Your task to perform on an android device: Go to eBay Image 0: 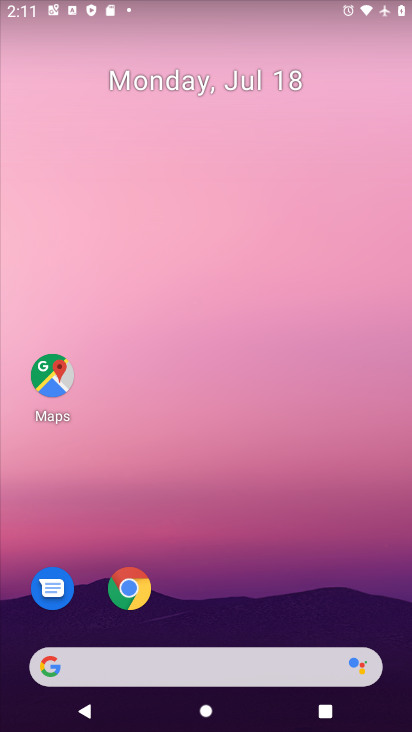
Step 0: drag from (209, 637) to (322, 189)
Your task to perform on an android device: Go to eBay Image 1: 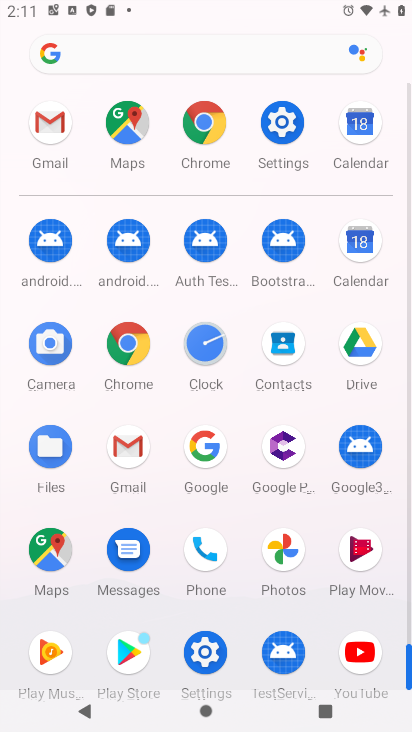
Step 1: click (206, 125)
Your task to perform on an android device: Go to eBay Image 2: 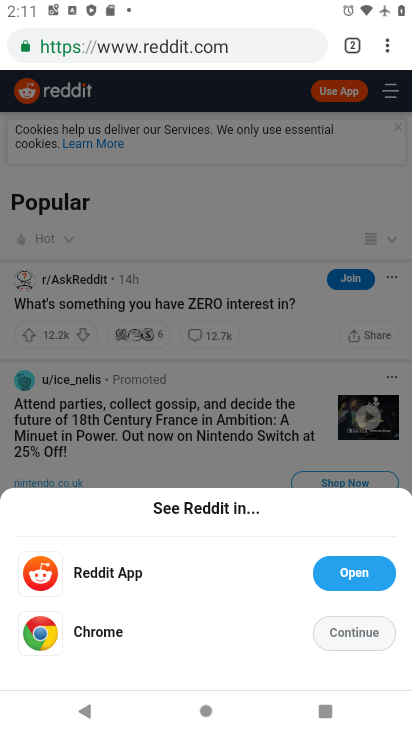
Step 2: click (294, 53)
Your task to perform on an android device: Go to eBay Image 3: 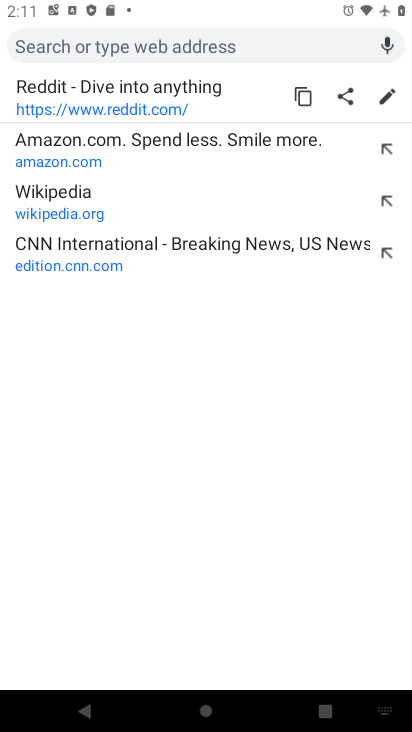
Step 3: click (226, 45)
Your task to perform on an android device: Go to eBay Image 4: 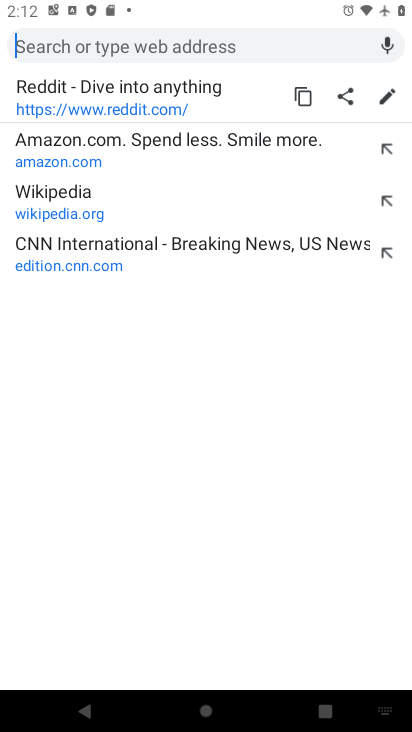
Step 4: type "ebay"
Your task to perform on an android device: Go to eBay Image 5: 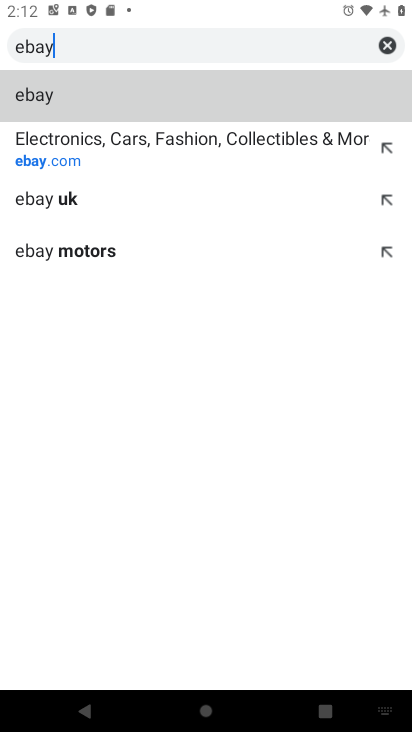
Step 5: click (69, 160)
Your task to perform on an android device: Go to eBay Image 6: 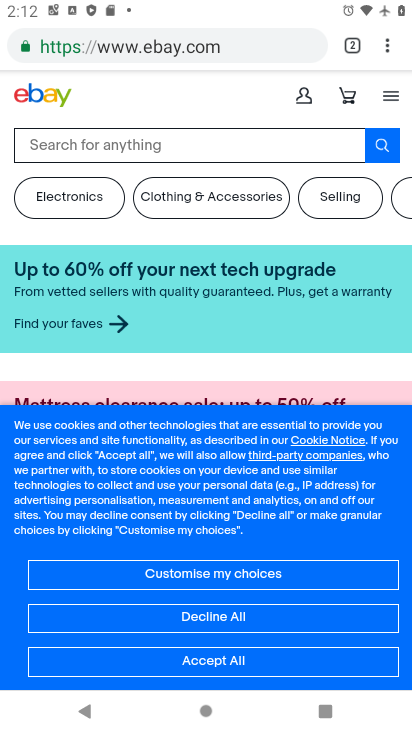
Step 6: task complete